Your task to perform on an android device: Check the news Image 0: 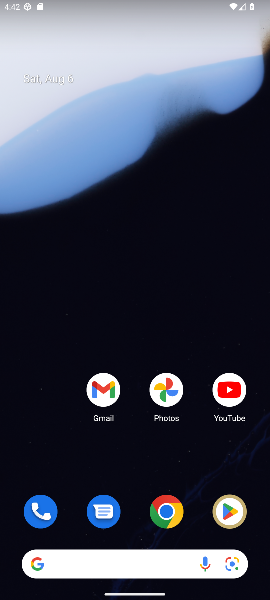
Step 0: click (164, 520)
Your task to perform on an android device: Check the news Image 1: 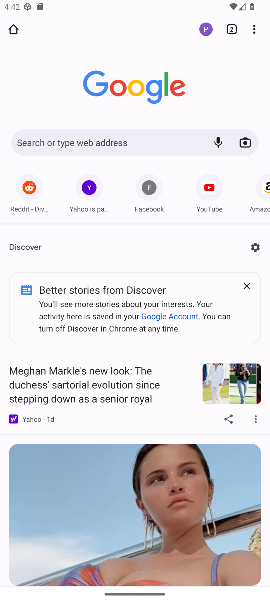
Step 1: click (99, 142)
Your task to perform on an android device: Check the news Image 2: 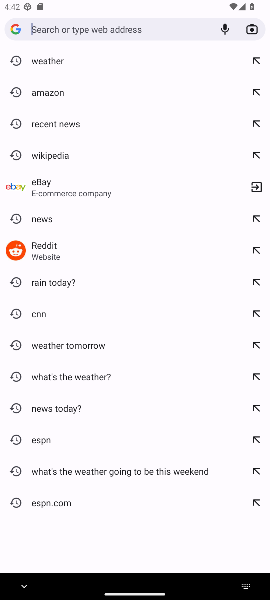
Step 2: type "news\"
Your task to perform on an android device: Check the news Image 3: 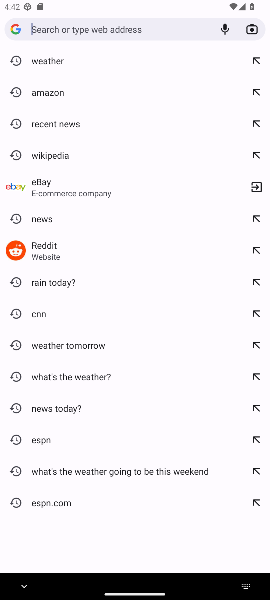
Step 3: type "news"
Your task to perform on an android device: Check the news Image 4: 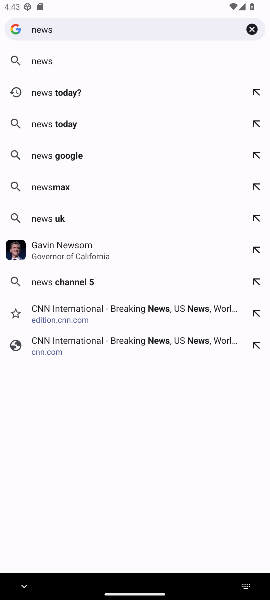
Step 4: click (50, 69)
Your task to perform on an android device: Check the news Image 5: 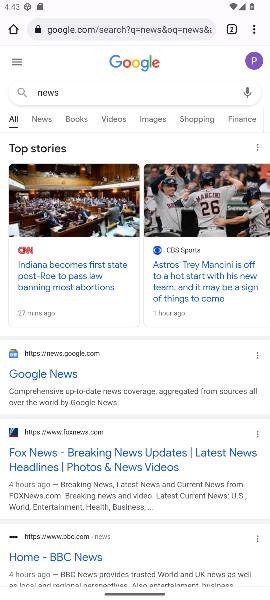
Step 5: click (176, 255)
Your task to perform on an android device: Check the news Image 6: 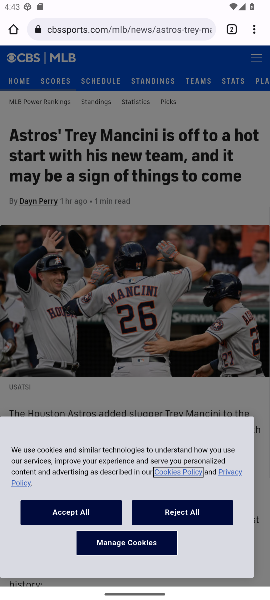
Step 6: task complete